Your task to perform on an android device: toggle notifications settings in the gmail app Image 0: 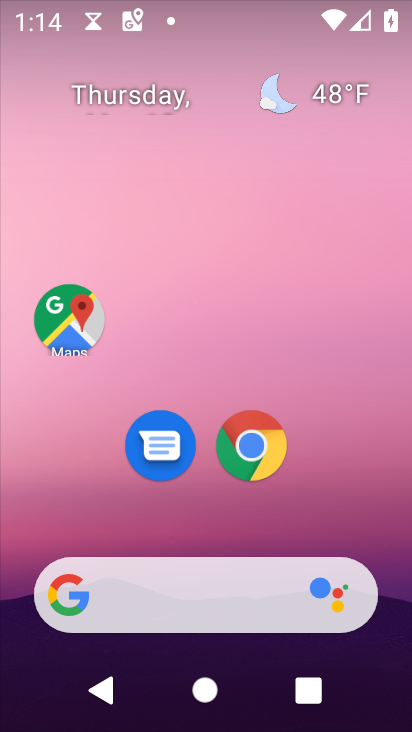
Step 0: drag from (334, 506) to (330, 102)
Your task to perform on an android device: toggle notifications settings in the gmail app Image 1: 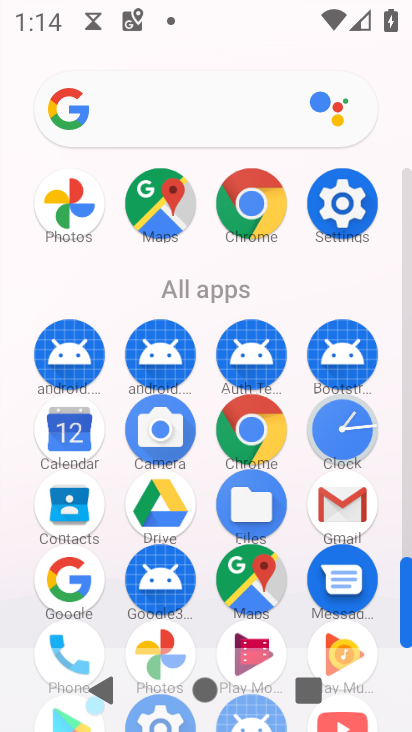
Step 1: click (350, 494)
Your task to perform on an android device: toggle notifications settings in the gmail app Image 2: 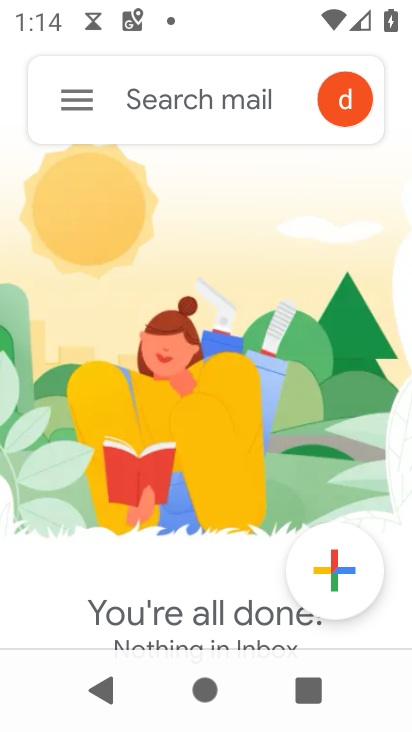
Step 2: click (56, 87)
Your task to perform on an android device: toggle notifications settings in the gmail app Image 3: 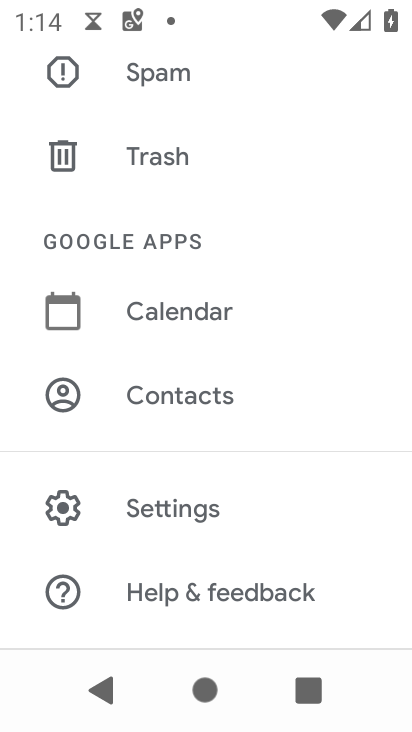
Step 3: click (209, 506)
Your task to perform on an android device: toggle notifications settings in the gmail app Image 4: 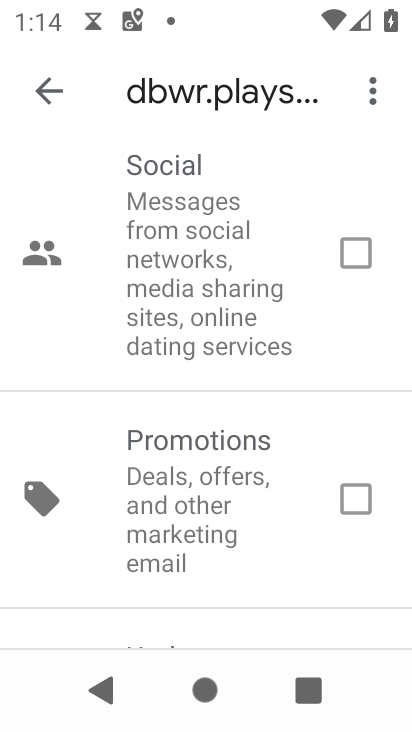
Step 4: drag from (189, 163) to (192, 533)
Your task to perform on an android device: toggle notifications settings in the gmail app Image 5: 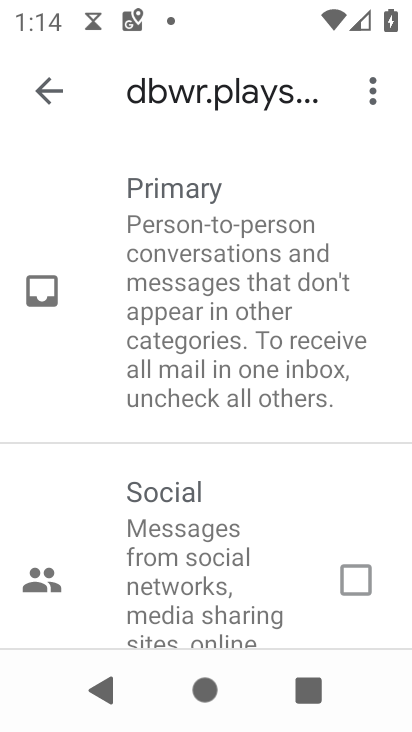
Step 5: drag from (260, 163) to (216, 490)
Your task to perform on an android device: toggle notifications settings in the gmail app Image 6: 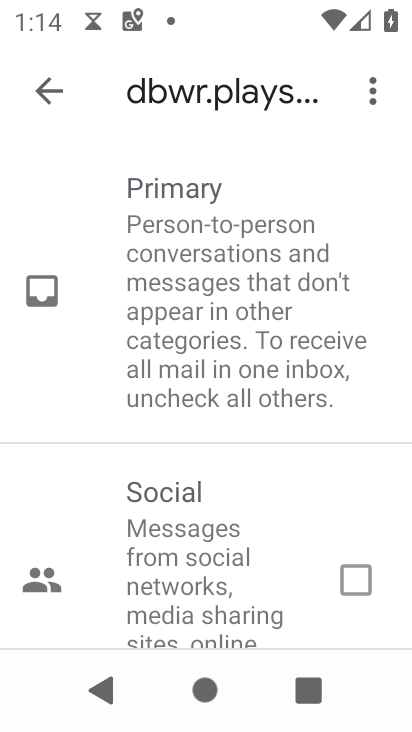
Step 6: click (53, 87)
Your task to perform on an android device: toggle notifications settings in the gmail app Image 7: 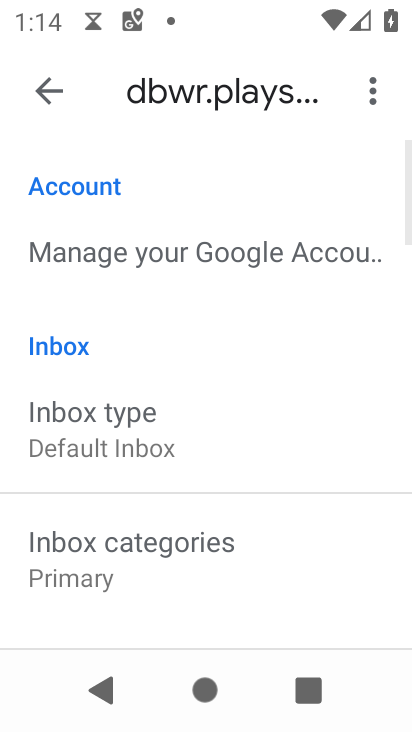
Step 7: drag from (210, 449) to (238, 205)
Your task to perform on an android device: toggle notifications settings in the gmail app Image 8: 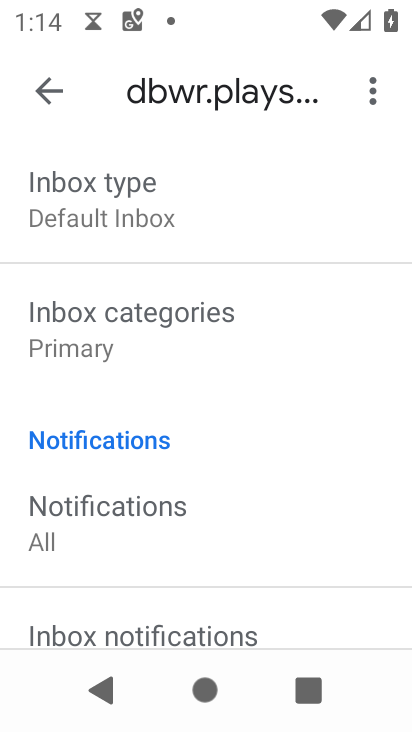
Step 8: drag from (208, 504) to (273, 149)
Your task to perform on an android device: toggle notifications settings in the gmail app Image 9: 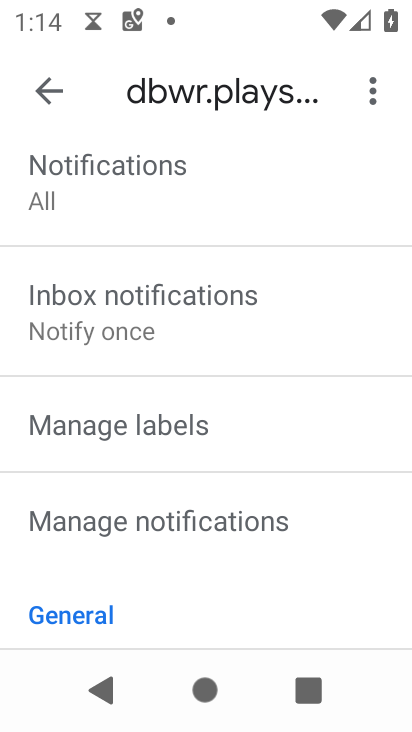
Step 9: click (206, 531)
Your task to perform on an android device: toggle notifications settings in the gmail app Image 10: 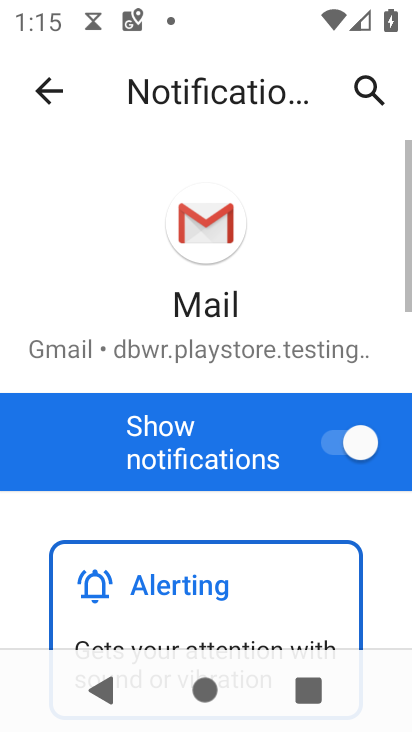
Step 10: drag from (289, 565) to (318, 240)
Your task to perform on an android device: toggle notifications settings in the gmail app Image 11: 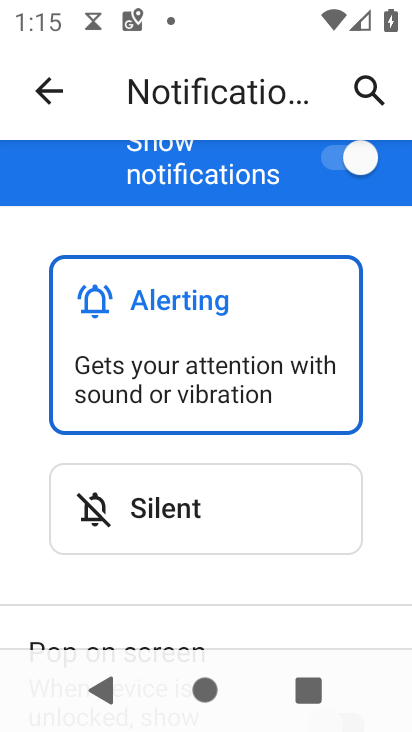
Step 11: click (333, 153)
Your task to perform on an android device: toggle notifications settings in the gmail app Image 12: 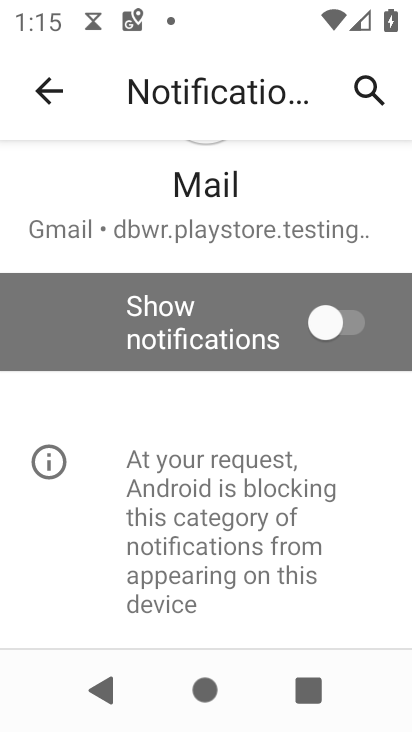
Step 12: task complete